Your task to perform on an android device: install app "Spotify: Music and Podcasts" Image 0: 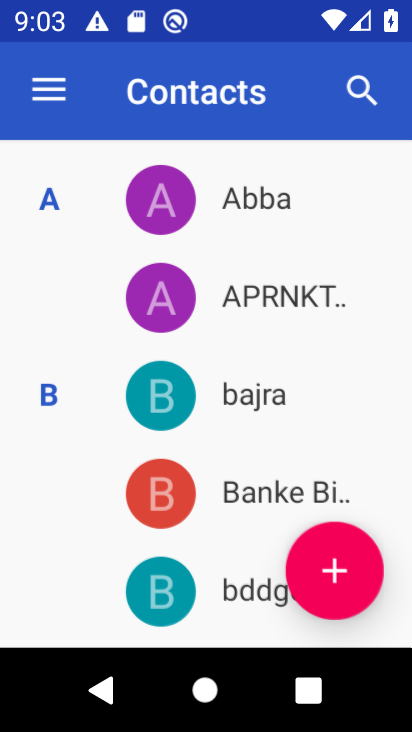
Step 0: drag from (209, 528) to (209, 206)
Your task to perform on an android device: install app "Spotify: Music and Podcasts" Image 1: 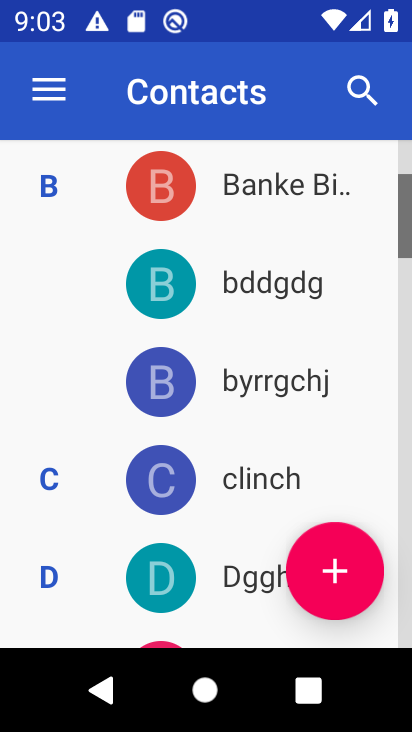
Step 1: press home button
Your task to perform on an android device: install app "Spotify: Music and Podcasts" Image 2: 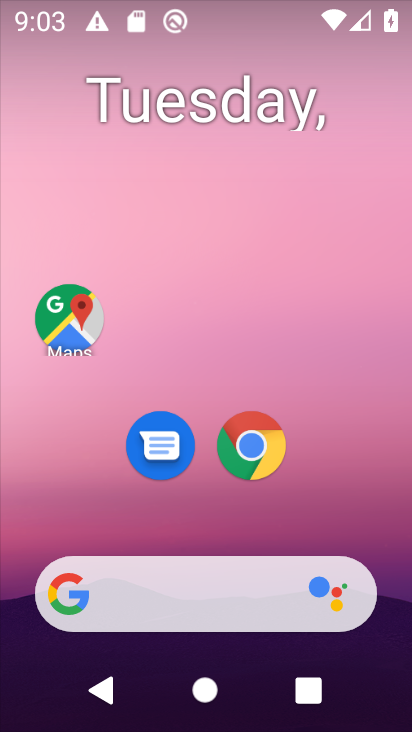
Step 2: drag from (200, 532) to (209, 137)
Your task to perform on an android device: install app "Spotify: Music and Podcasts" Image 3: 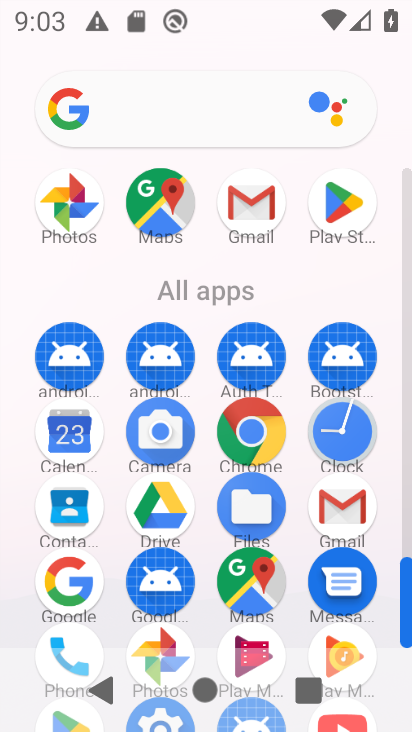
Step 3: click (330, 188)
Your task to perform on an android device: install app "Spotify: Music and Podcasts" Image 4: 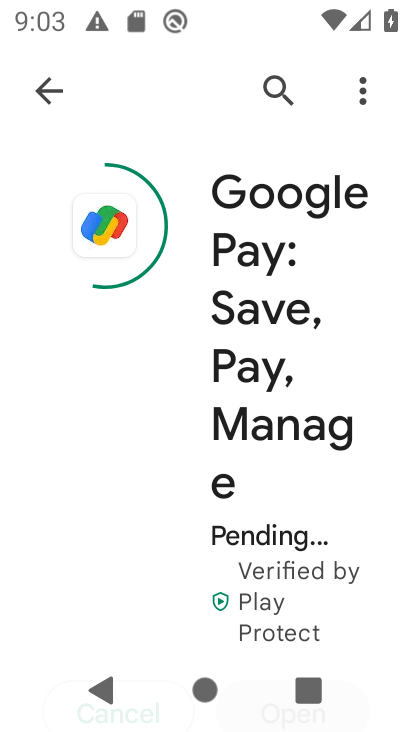
Step 4: click (75, 89)
Your task to perform on an android device: install app "Spotify: Music and Podcasts" Image 5: 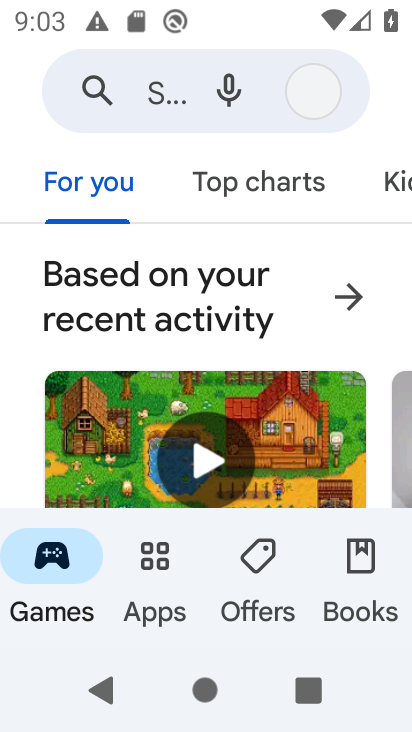
Step 5: click (141, 78)
Your task to perform on an android device: install app "Spotify: Music and Podcasts" Image 6: 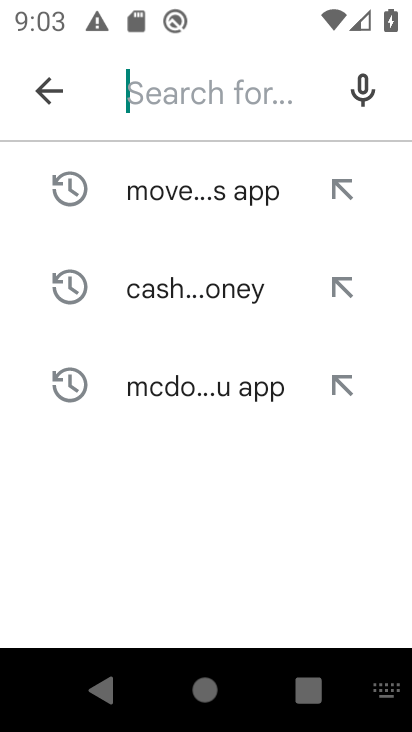
Step 6: type "Spotify: Music and Podcasts "
Your task to perform on an android device: install app "Spotify: Music and Podcasts" Image 7: 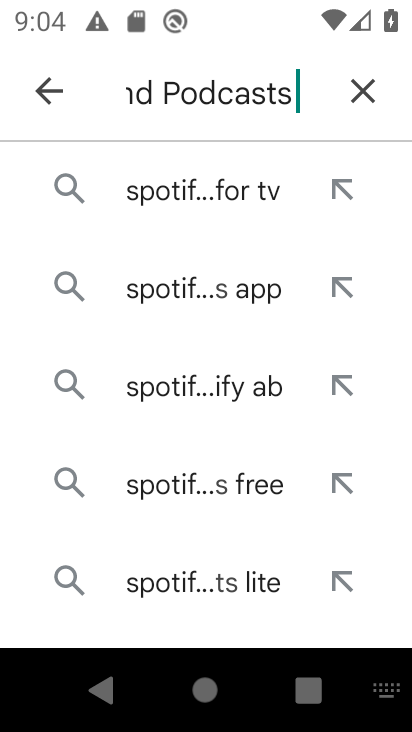
Step 7: click (169, 187)
Your task to perform on an android device: install app "Spotify: Music and Podcasts" Image 8: 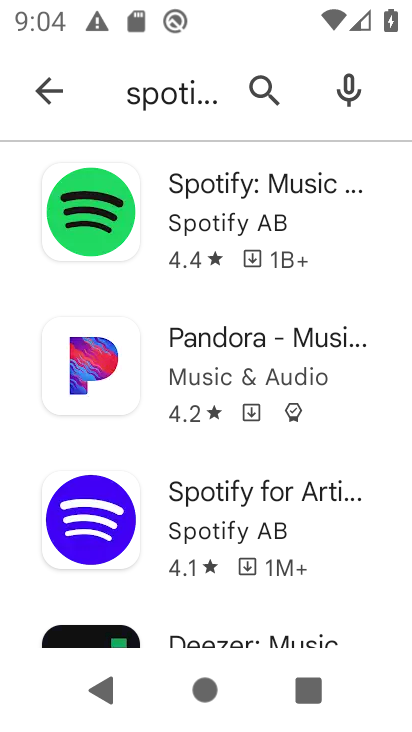
Step 8: click (183, 211)
Your task to perform on an android device: install app "Spotify: Music and Podcasts" Image 9: 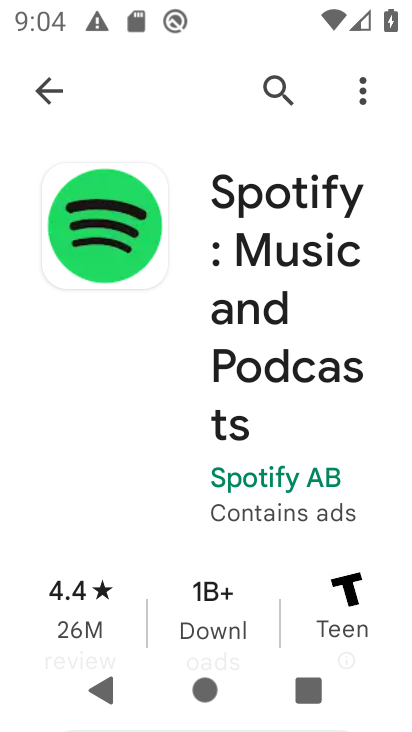
Step 9: drag from (94, 521) to (189, 91)
Your task to perform on an android device: install app "Spotify: Music and Podcasts" Image 10: 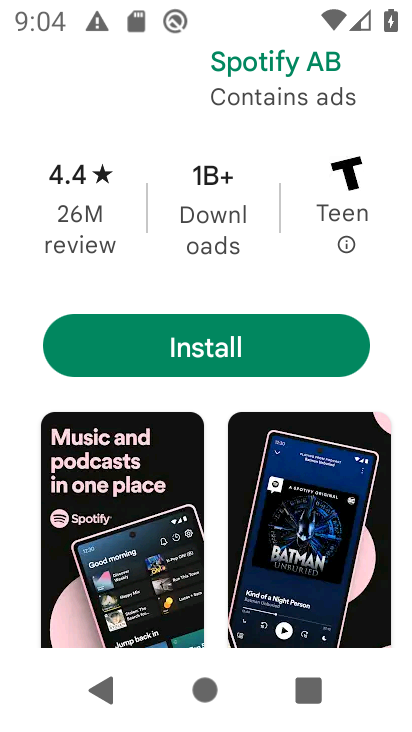
Step 10: click (171, 354)
Your task to perform on an android device: install app "Spotify: Music and Podcasts" Image 11: 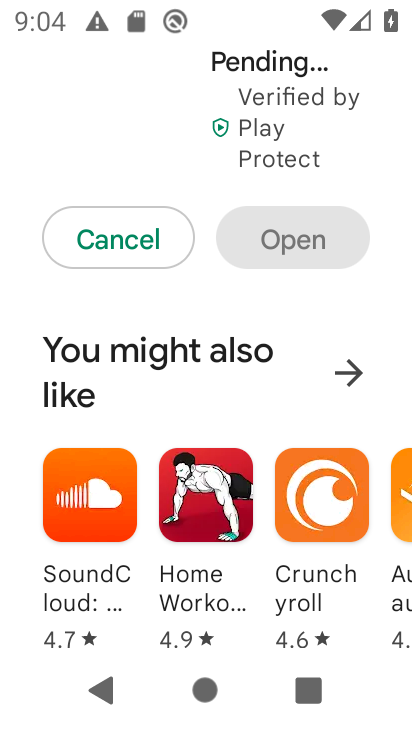
Step 11: task complete